Your task to perform on an android device: turn on wifi Image 0: 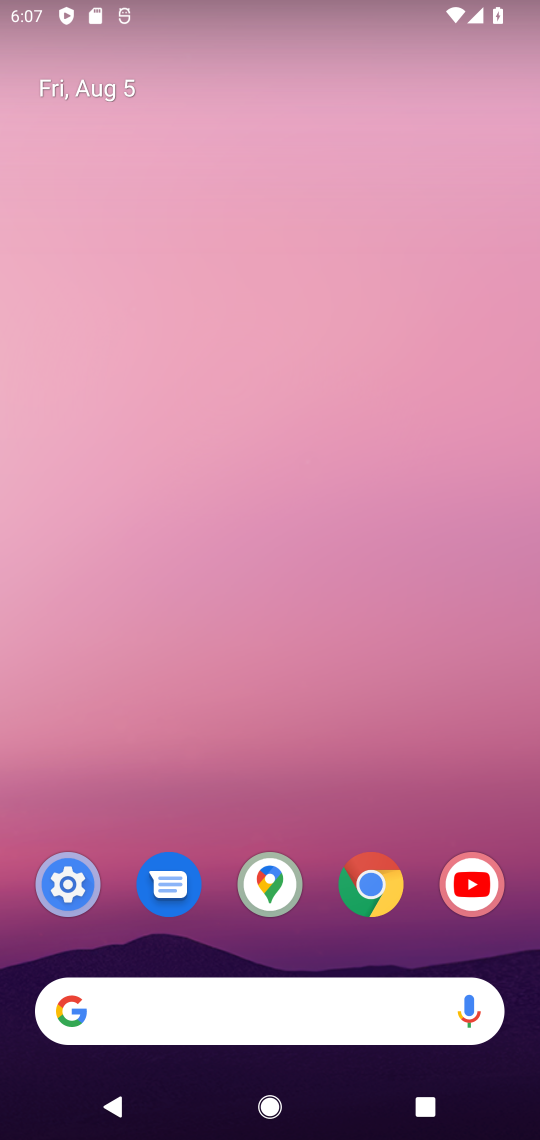
Step 0: press home button
Your task to perform on an android device: turn on wifi Image 1: 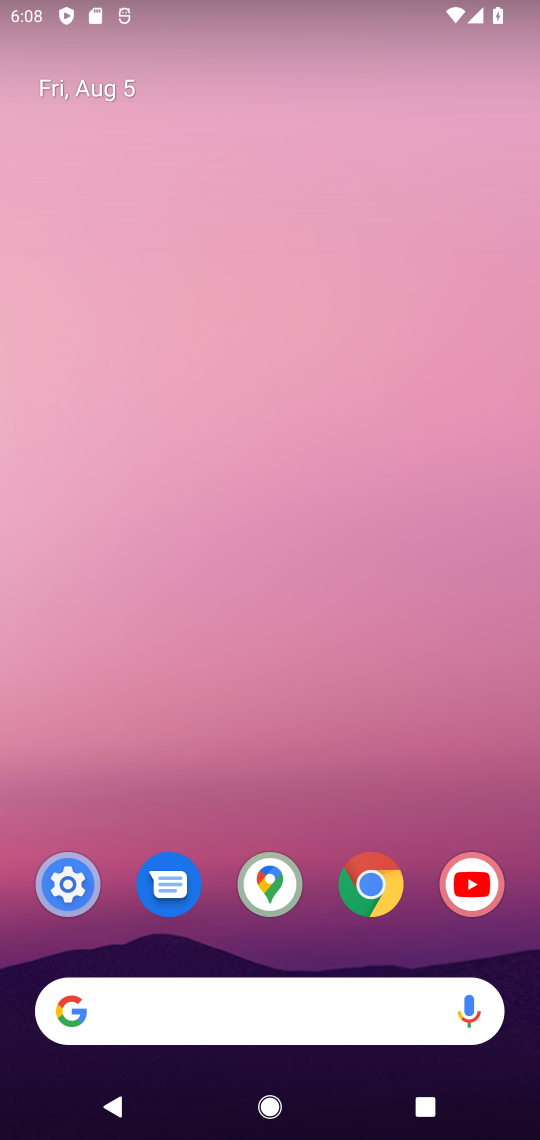
Step 1: drag from (323, 821) to (346, 34)
Your task to perform on an android device: turn on wifi Image 2: 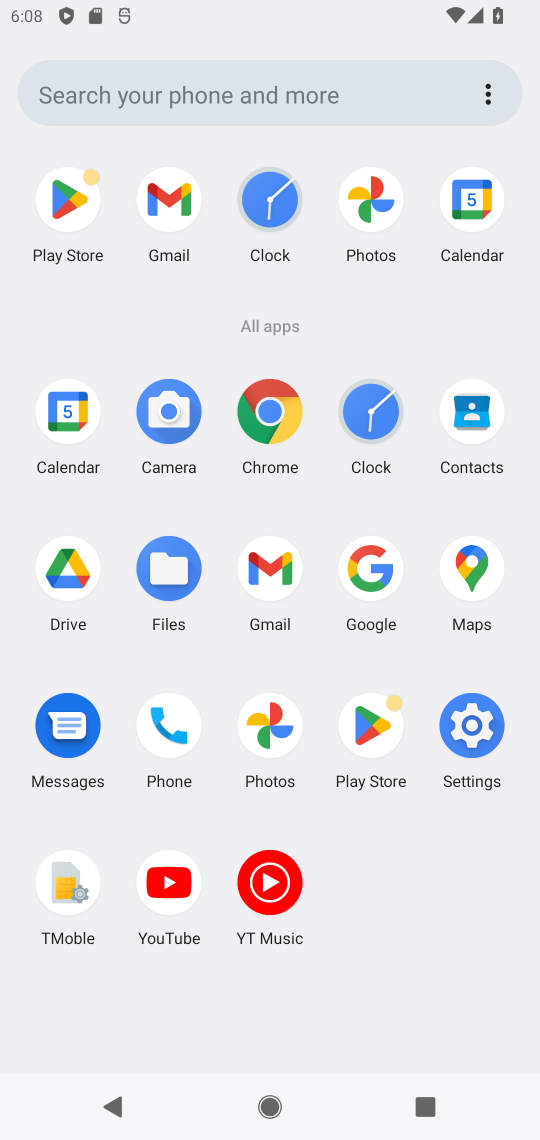
Step 2: click (468, 719)
Your task to perform on an android device: turn on wifi Image 3: 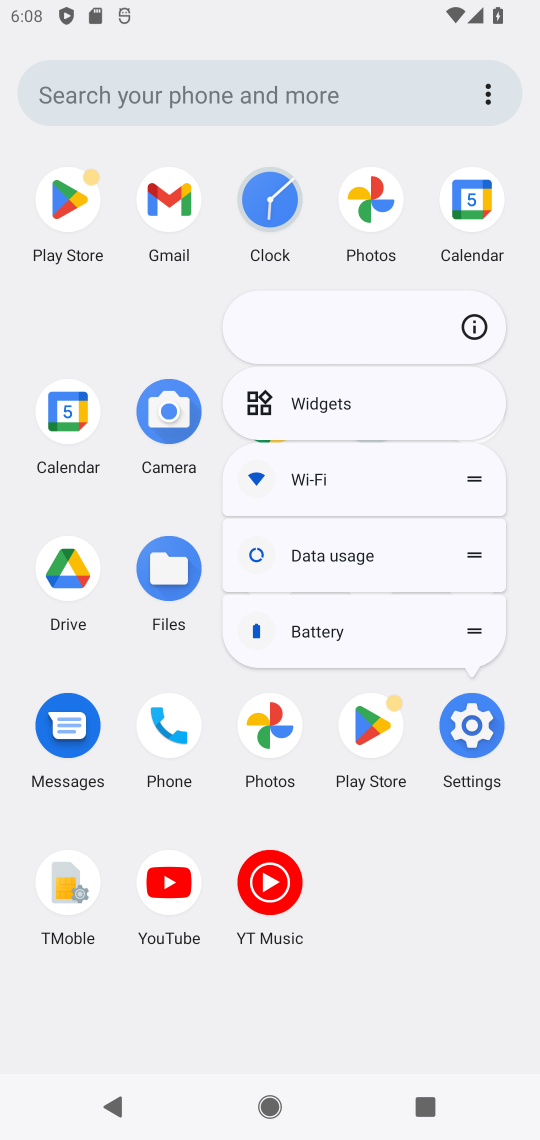
Step 3: click (461, 716)
Your task to perform on an android device: turn on wifi Image 4: 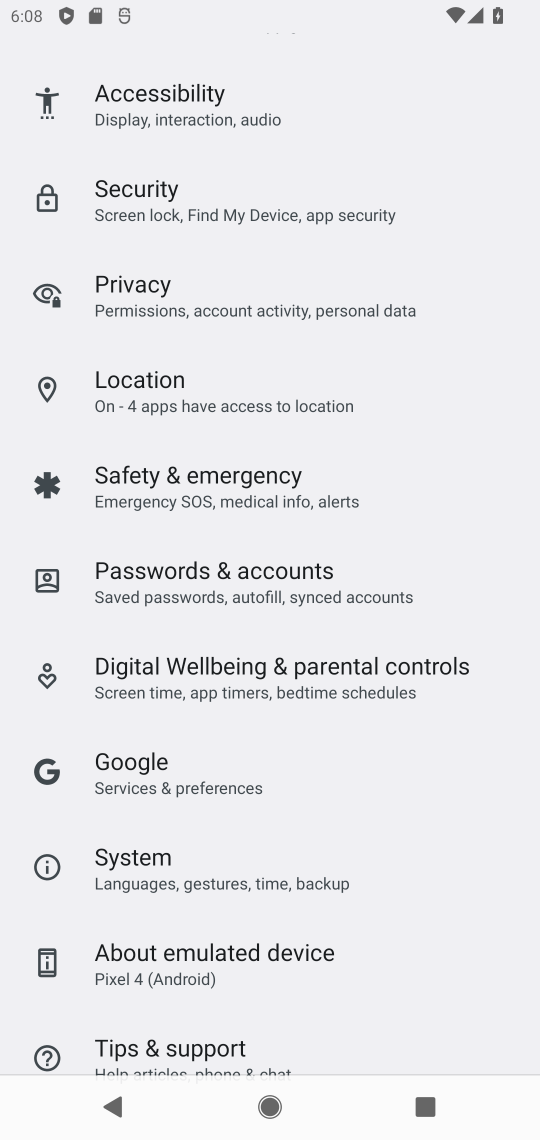
Step 4: drag from (266, 134) to (228, 1106)
Your task to perform on an android device: turn on wifi Image 5: 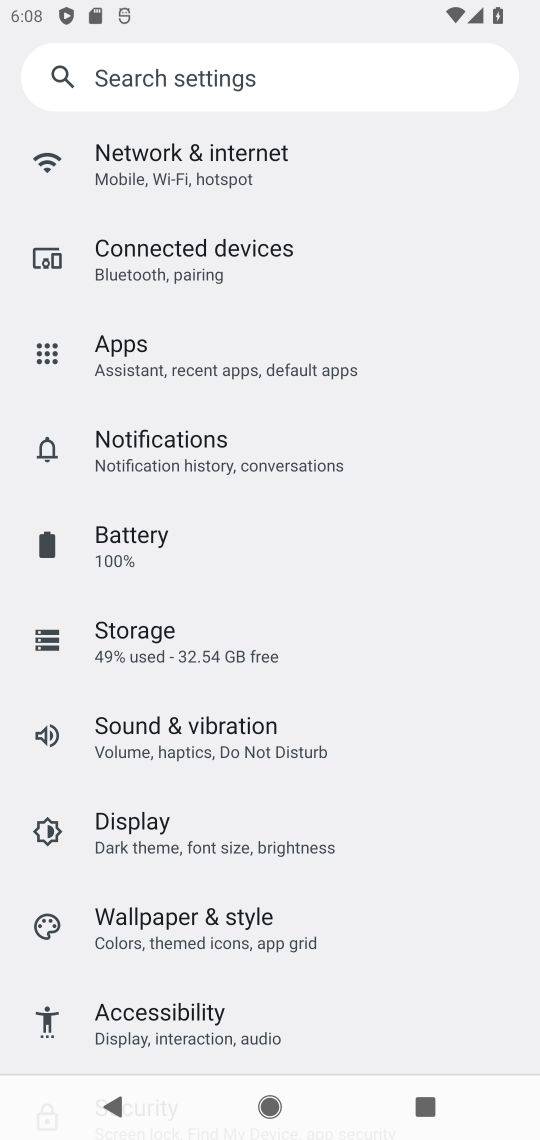
Step 5: click (227, 166)
Your task to perform on an android device: turn on wifi Image 6: 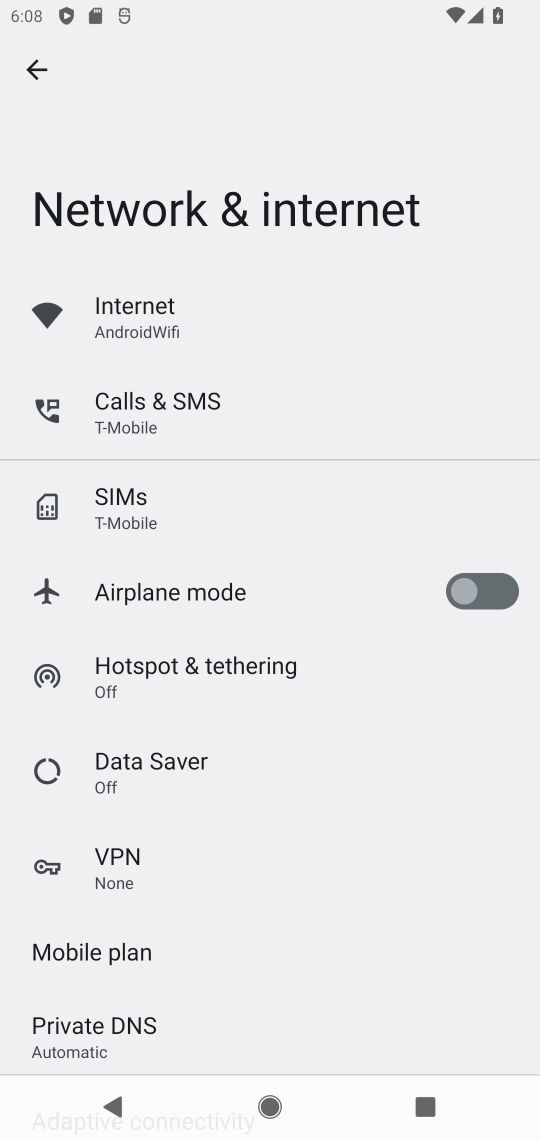
Step 6: click (222, 312)
Your task to perform on an android device: turn on wifi Image 7: 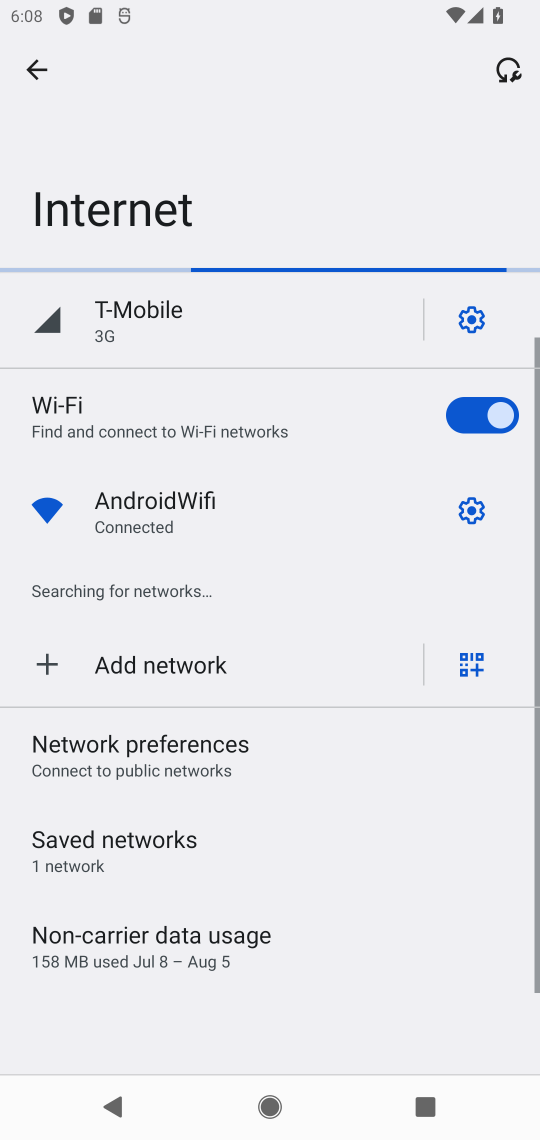
Step 7: task complete